Your task to perform on an android device: stop showing notifications on the lock screen Image 0: 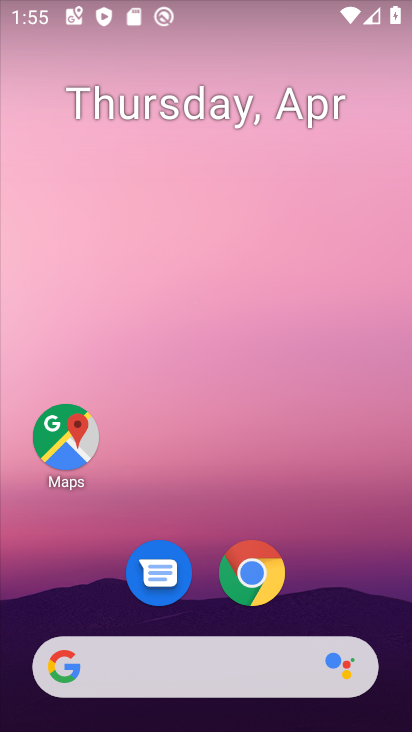
Step 0: drag from (348, 609) to (231, 70)
Your task to perform on an android device: stop showing notifications on the lock screen Image 1: 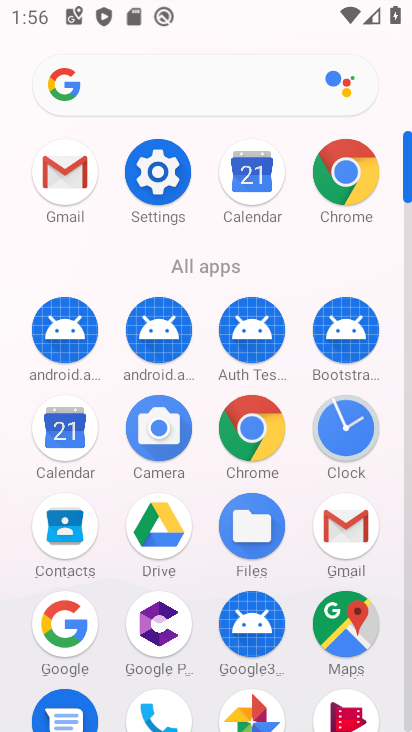
Step 1: click (161, 156)
Your task to perform on an android device: stop showing notifications on the lock screen Image 2: 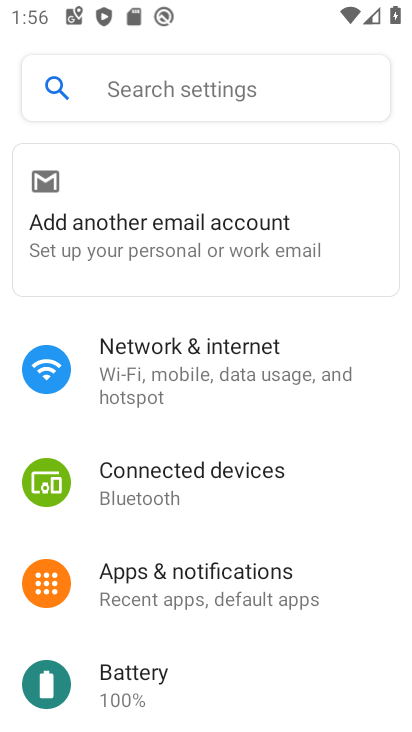
Step 2: click (229, 567)
Your task to perform on an android device: stop showing notifications on the lock screen Image 3: 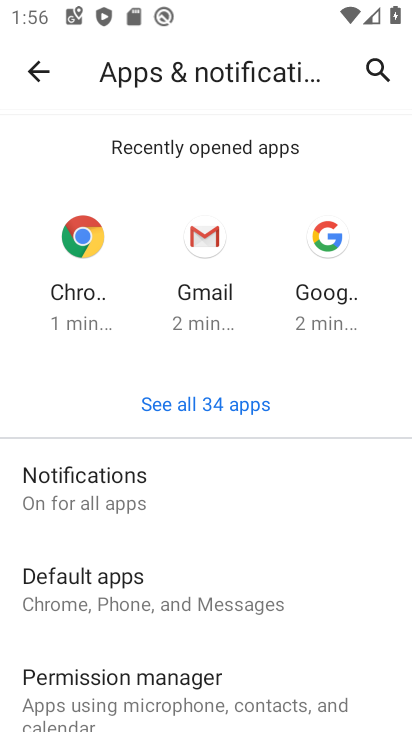
Step 3: click (197, 502)
Your task to perform on an android device: stop showing notifications on the lock screen Image 4: 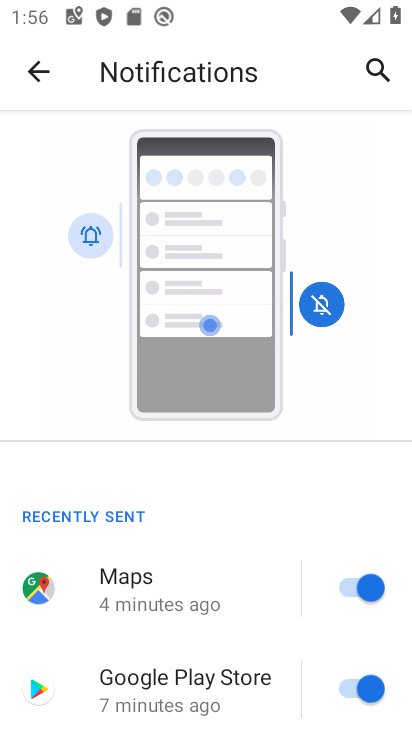
Step 4: drag from (130, 681) to (230, 99)
Your task to perform on an android device: stop showing notifications on the lock screen Image 5: 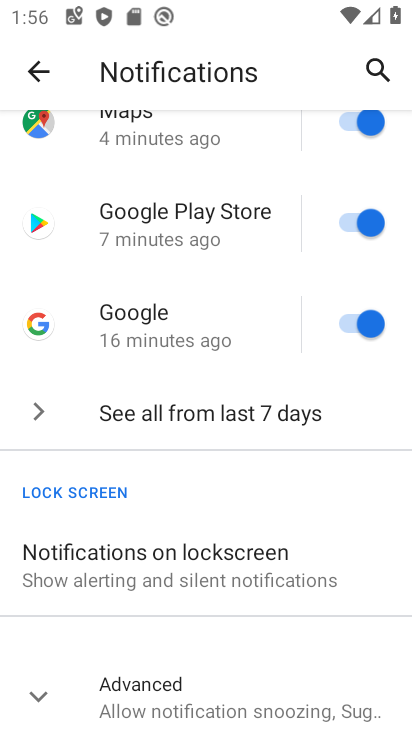
Step 5: click (209, 580)
Your task to perform on an android device: stop showing notifications on the lock screen Image 6: 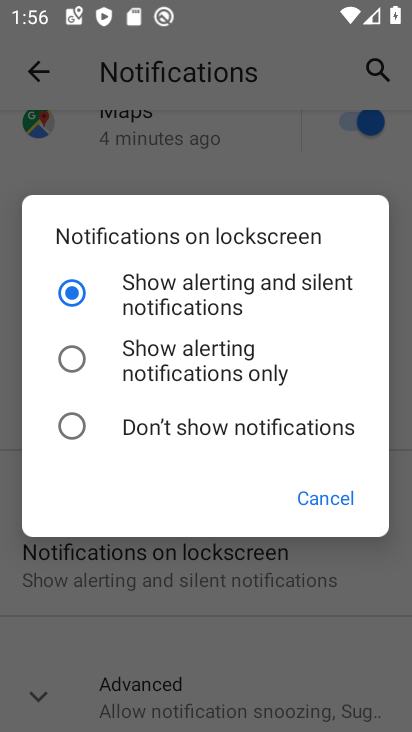
Step 6: click (175, 427)
Your task to perform on an android device: stop showing notifications on the lock screen Image 7: 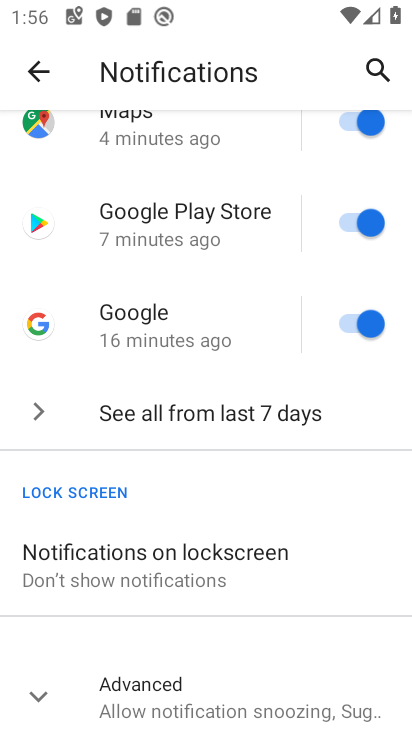
Step 7: task complete